Your task to perform on an android device: see tabs open on other devices in the chrome app Image 0: 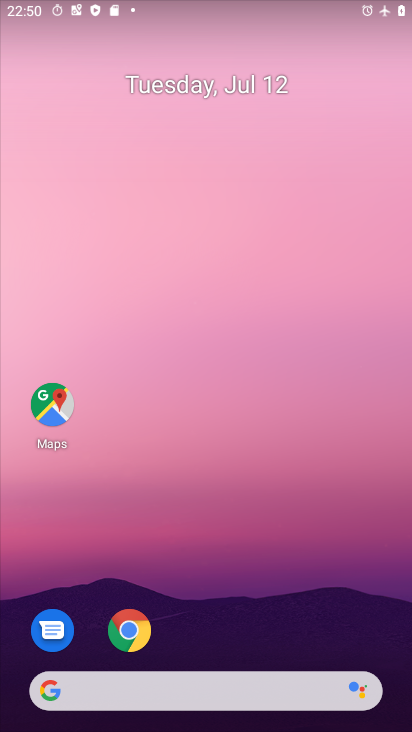
Step 0: click (133, 624)
Your task to perform on an android device: see tabs open on other devices in the chrome app Image 1: 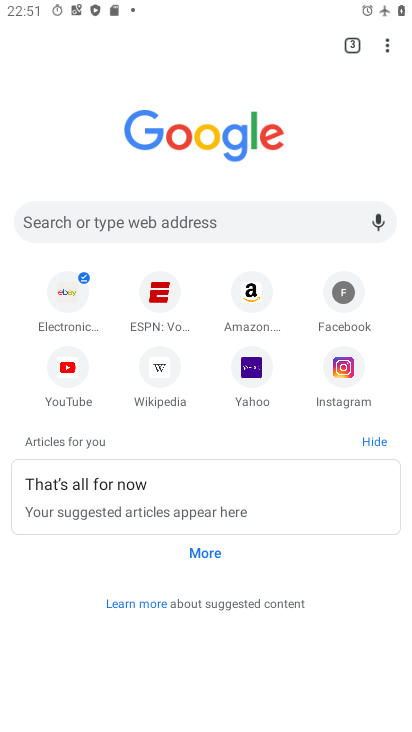
Step 1: task complete